Your task to perform on an android device: What's on my calendar tomorrow? Image 0: 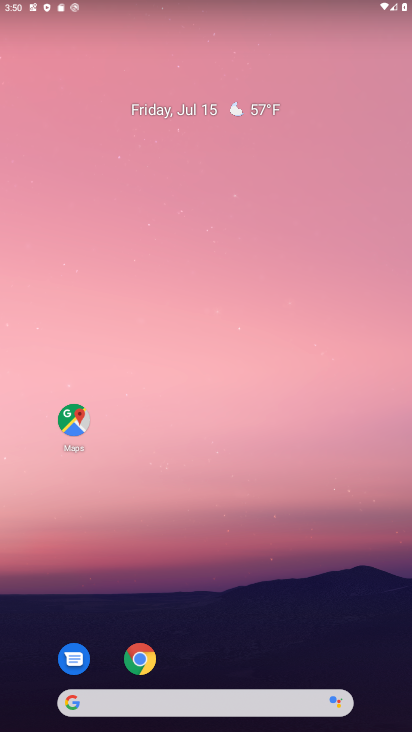
Step 0: drag from (204, 688) to (201, 321)
Your task to perform on an android device: What's on my calendar tomorrow? Image 1: 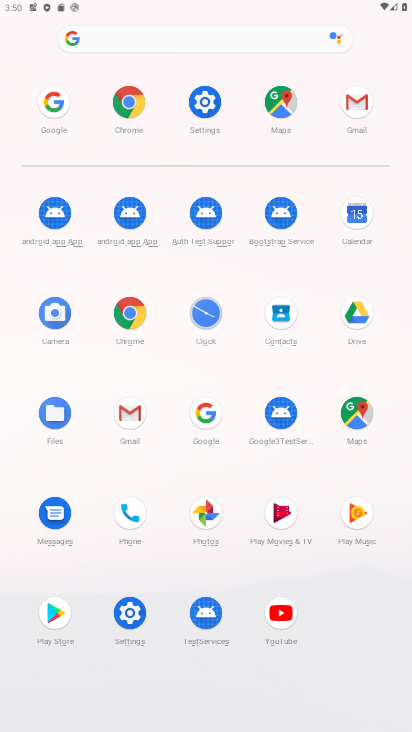
Step 1: click (346, 212)
Your task to perform on an android device: What's on my calendar tomorrow? Image 2: 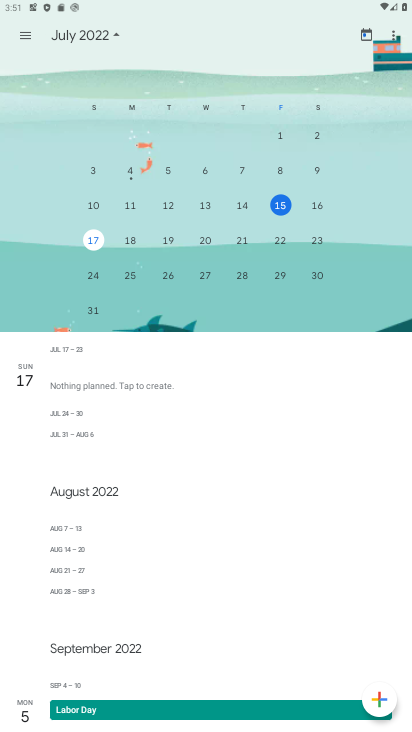
Step 2: click (311, 205)
Your task to perform on an android device: What's on my calendar tomorrow? Image 3: 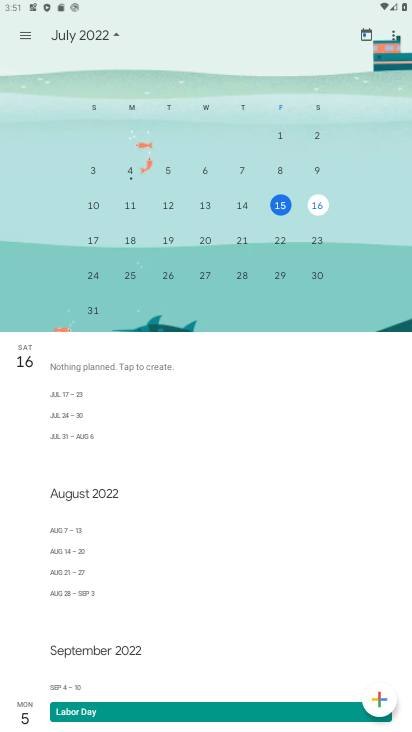
Step 3: task complete